Your task to perform on an android device: Open display settings Image 0: 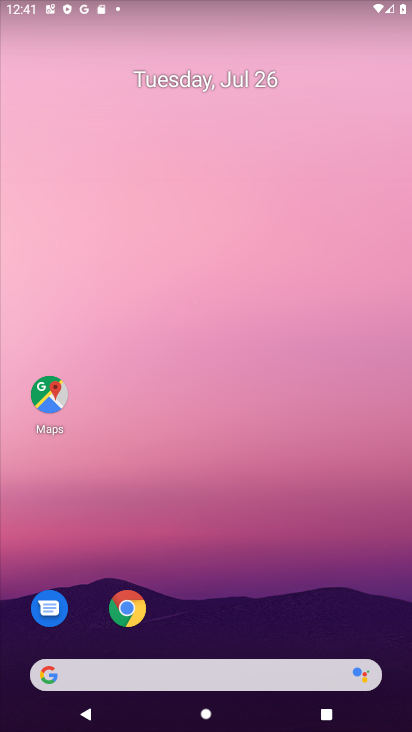
Step 0: drag from (177, 620) to (127, 128)
Your task to perform on an android device: Open display settings Image 1: 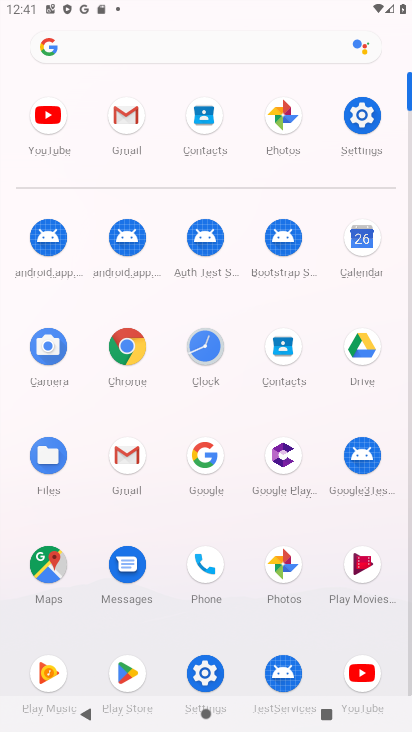
Step 1: click (364, 120)
Your task to perform on an android device: Open display settings Image 2: 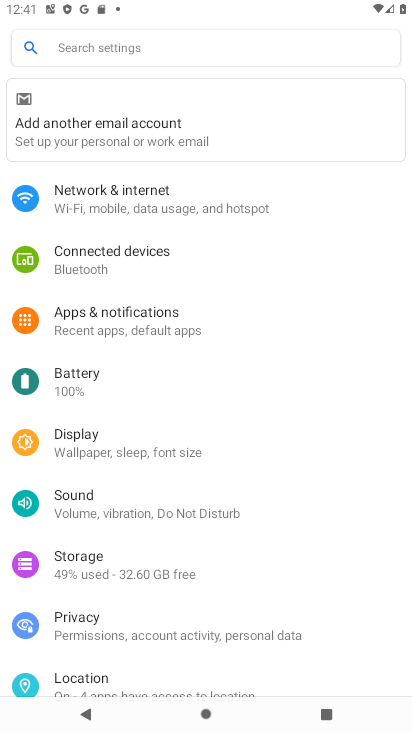
Step 2: click (95, 462)
Your task to perform on an android device: Open display settings Image 3: 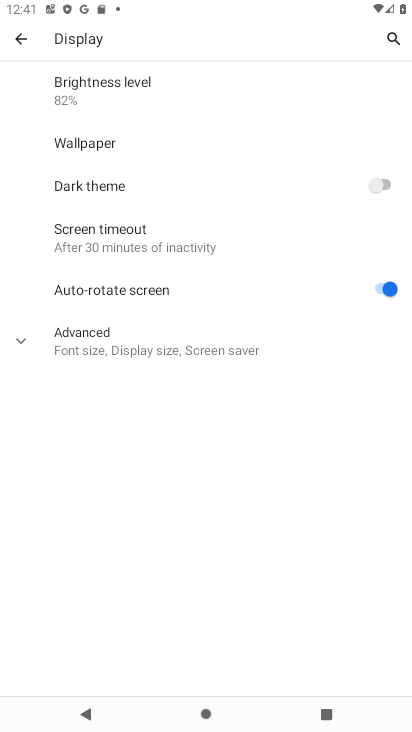
Step 3: task complete